Your task to perform on an android device: toggle priority inbox in the gmail app Image 0: 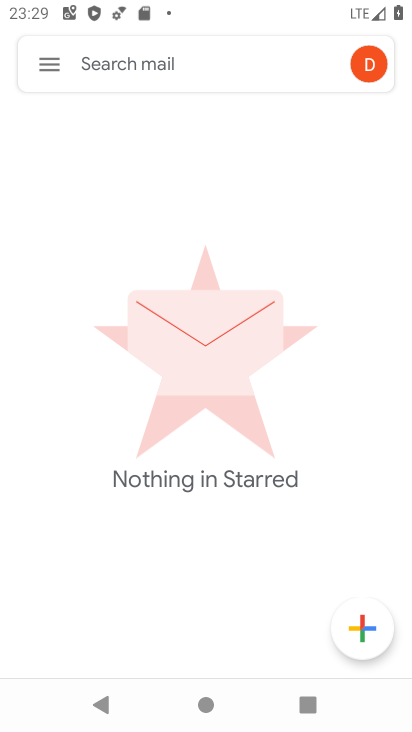
Step 0: drag from (114, 651) to (144, 102)
Your task to perform on an android device: toggle priority inbox in the gmail app Image 1: 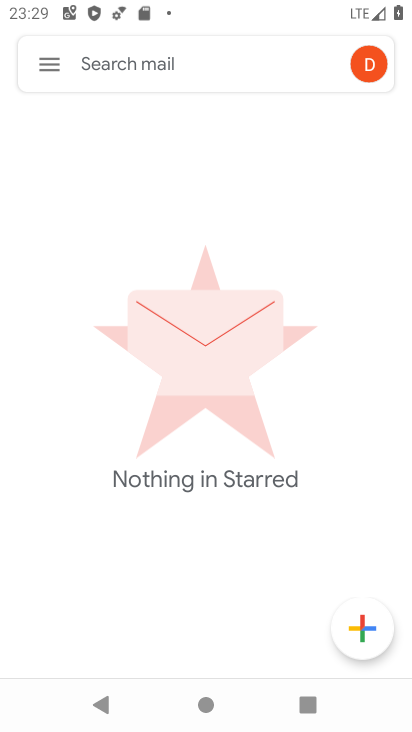
Step 1: click (44, 53)
Your task to perform on an android device: toggle priority inbox in the gmail app Image 2: 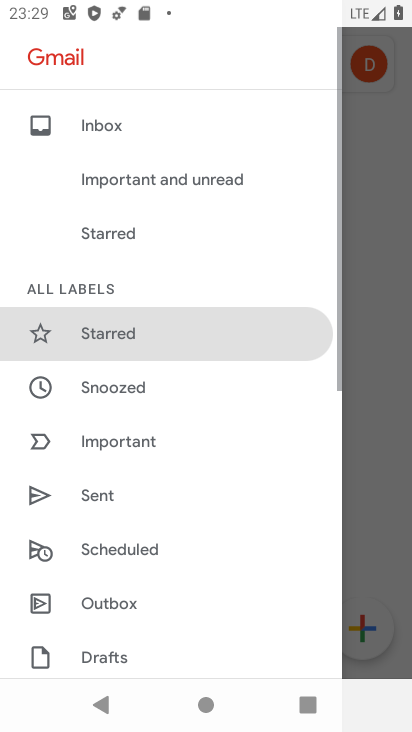
Step 2: click (139, 103)
Your task to perform on an android device: toggle priority inbox in the gmail app Image 3: 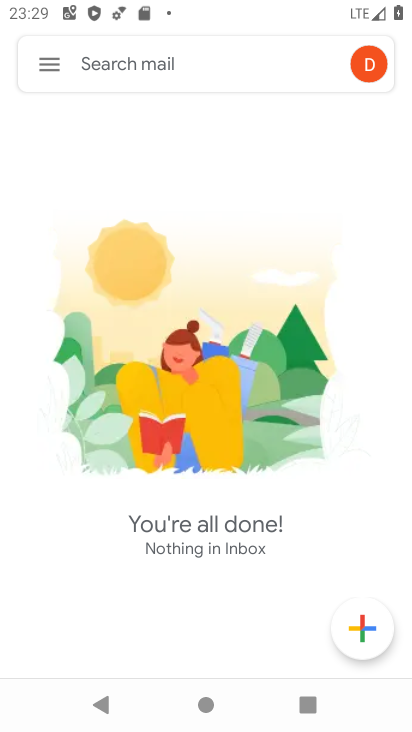
Step 3: click (40, 66)
Your task to perform on an android device: toggle priority inbox in the gmail app Image 4: 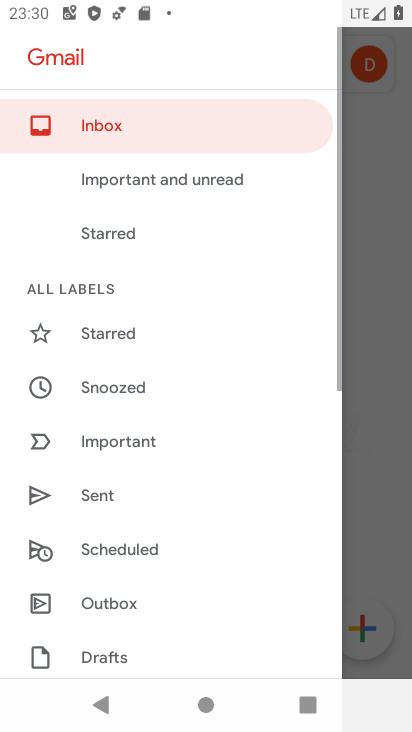
Step 4: drag from (96, 645) to (178, 118)
Your task to perform on an android device: toggle priority inbox in the gmail app Image 5: 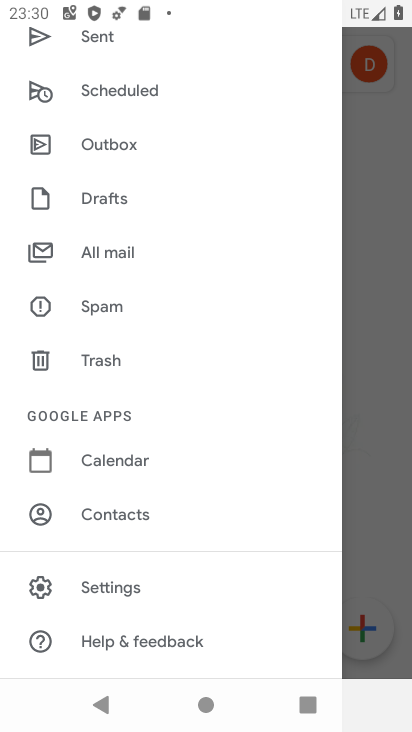
Step 5: click (88, 567)
Your task to perform on an android device: toggle priority inbox in the gmail app Image 6: 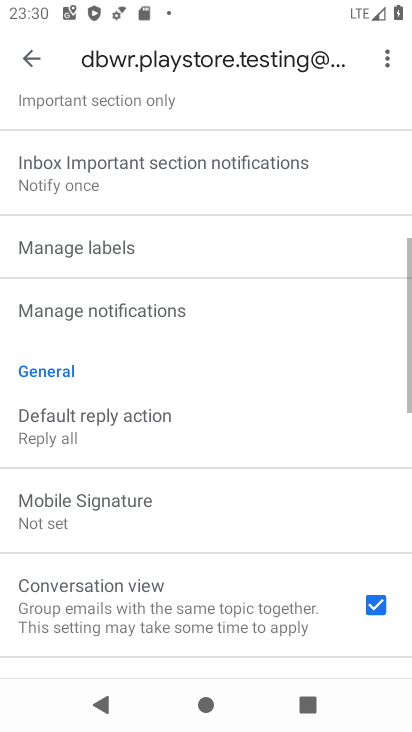
Step 6: drag from (169, 603) to (220, 219)
Your task to perform on an android device: toggle priority inbox in the gmail app Image 7: 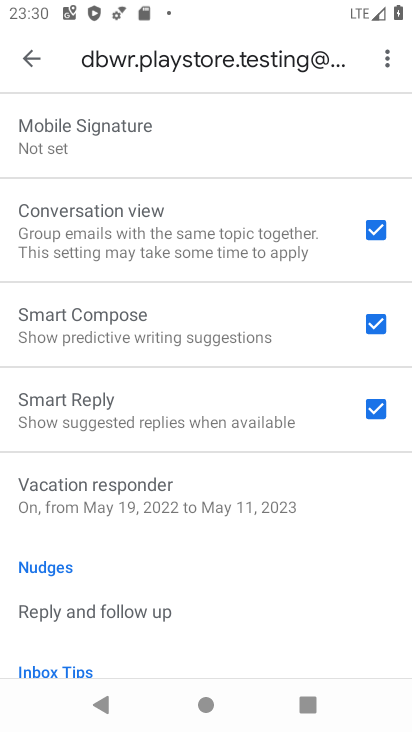
Step 7: drag from (163, 163) to (253, 707)
Your task to perform on an android device: toggle priority inbox in the gmail app Image 8: 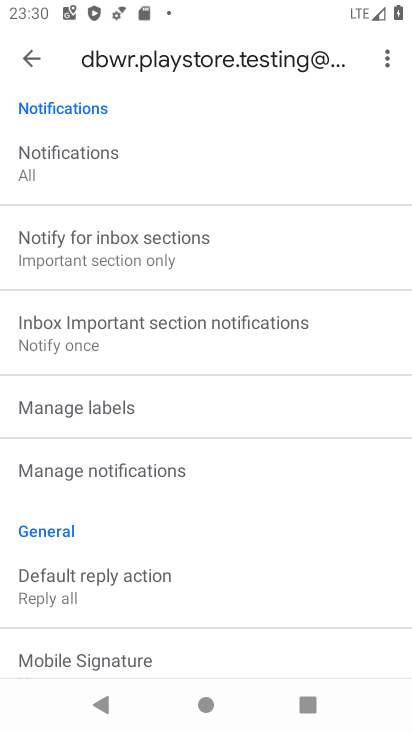
Step 8: drag from (161, 186) to (269, 626)
Your task to perform on an android device: toggle priority inbox in the gmail app Image 9: 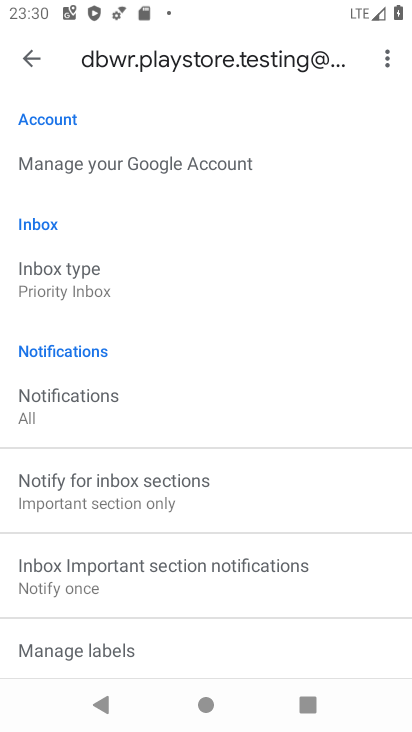
Step 9: click (101, 265)
Your task to perform on an android device: toggle priority inbox in the gmail app Image 10: 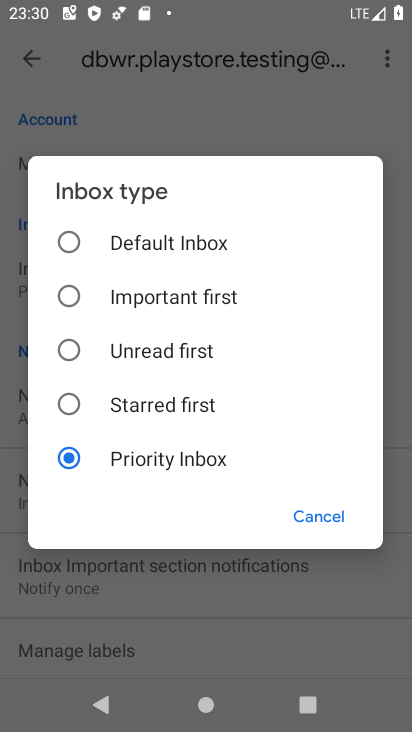
Step 10: click (85, 244)
Your task to perform on an android device: toggle priority inbox in the gmail app Image 11: 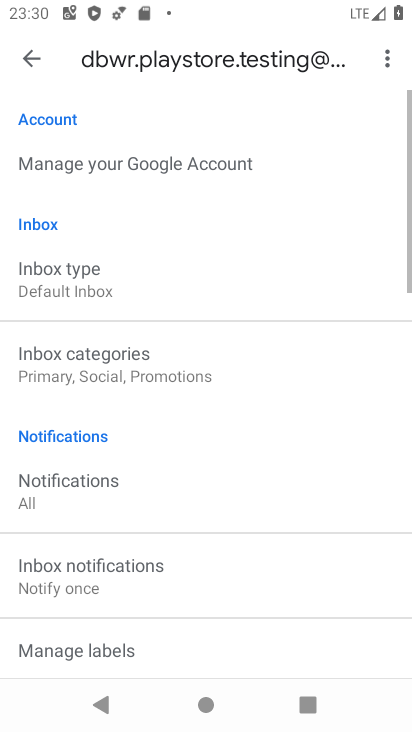
Step 11: task complete